Your task to perform on an android device: open app "ZOOM Cloud Meetings" (install if not already installed) and go to login screen Image 0: 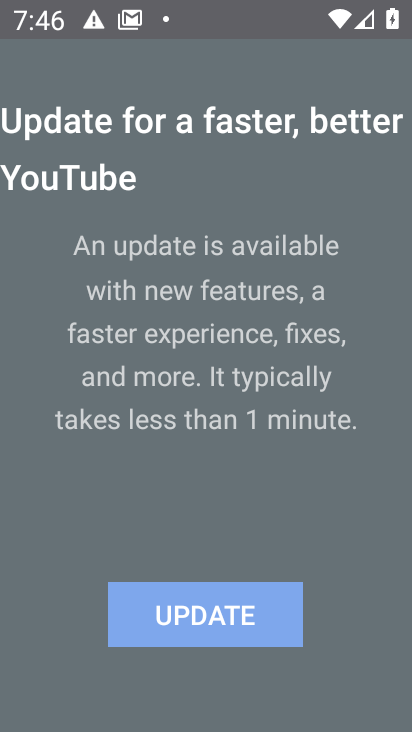
Step 0: press home button
Your task to perform on an android device: open app "ZOOM Cloud Meetings" (install if not already installed) and go to login screen Image 1: 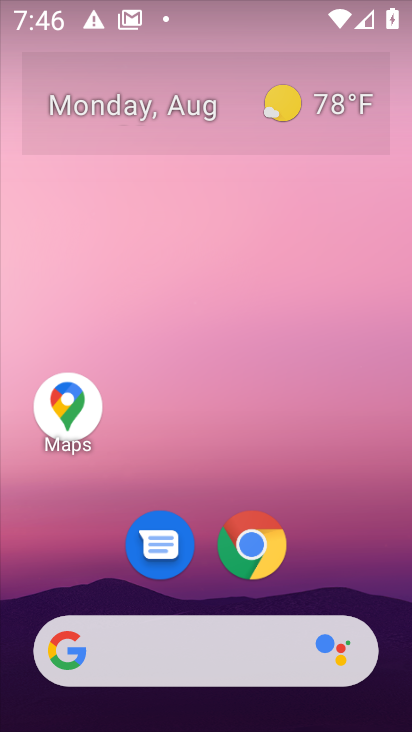
Step 1: drag from (369, 579) to (391, 86)
Your task to perform on an android device: open app "ZOOM Cloud Meetings" (install if not already installed) and go to login screen Image 2: 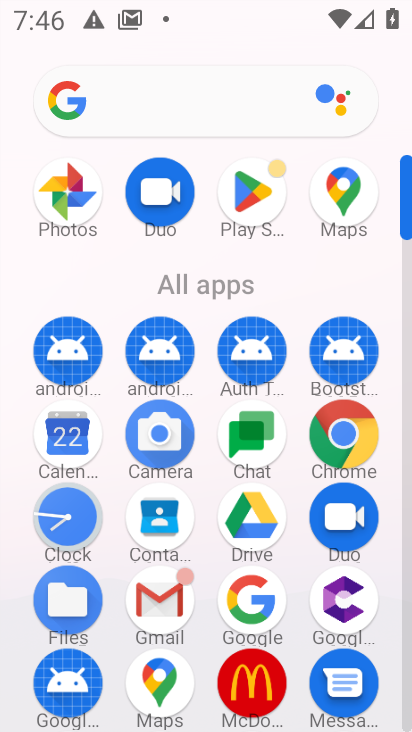
Step 2: click (246, 208)
Your task to perform on an android device: open app "ZOOM Cloud Meetings" (install if not already installed) and go to login screen Image 3: 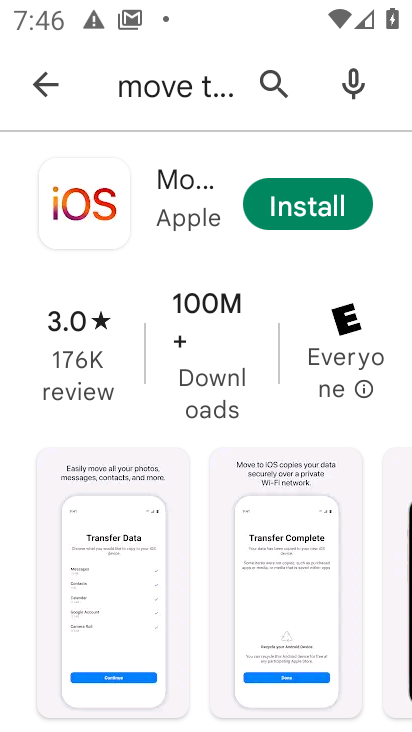
Step 3: press back button
Your task to perform on an android device: open app "ZOOM Cloud Meetings" (install if not already installed) and go to login screen Image 4: 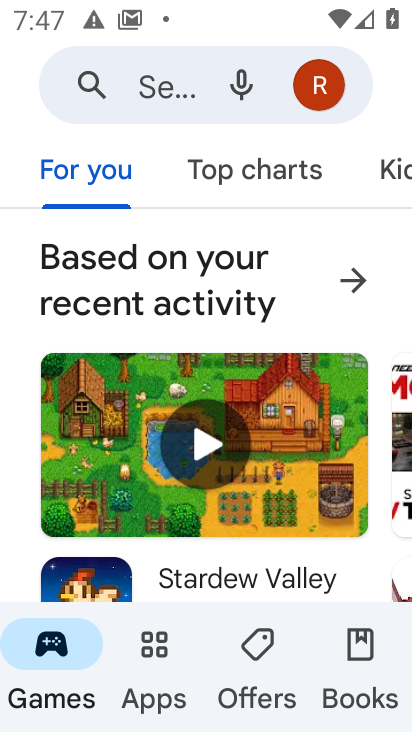
Step 4: click (154, 84)
Your task to perform on an android device: open app "ZOOM Cloud Meetings" (install if not already installed) and go to login screen Image 5: 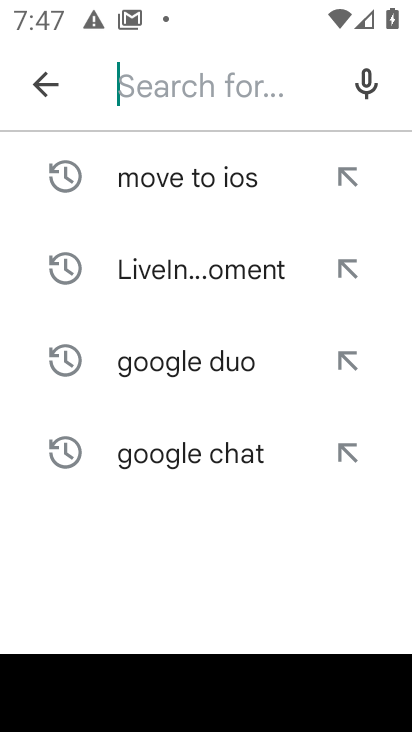
Step 5: type "ZOOM Cloud Meetings"
Your task to perform on an android device: open app "ZOOM Cloud Meetings" (install if not already installed) and go to login screen Image 6: 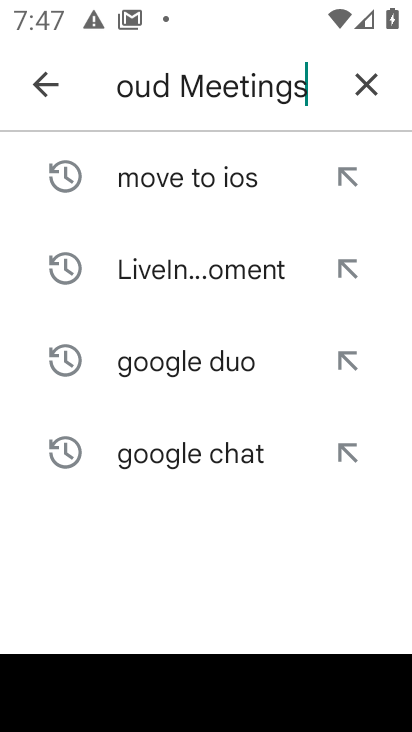
Step 6: press enter
Your task to perform on an android device: open app "ZOOM Cloud Meetings" (install if not already installed) and go to login screen Image 7: 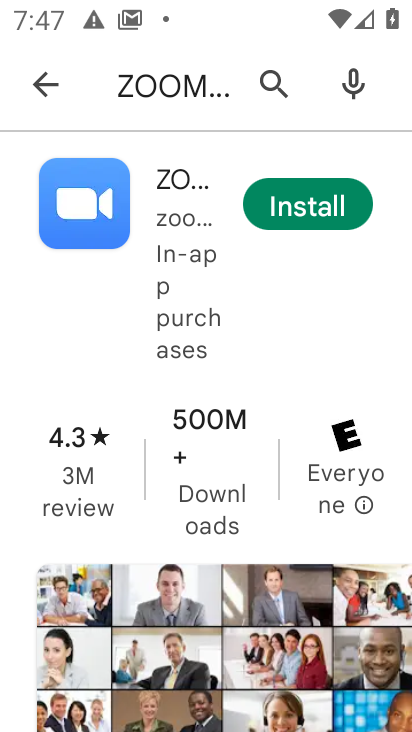
Step 7: click (304, 204)
Your task to perform on an android device: open app "ZOOM Cloud Meetings" (install if not already installed) and go to login screen Image 8: 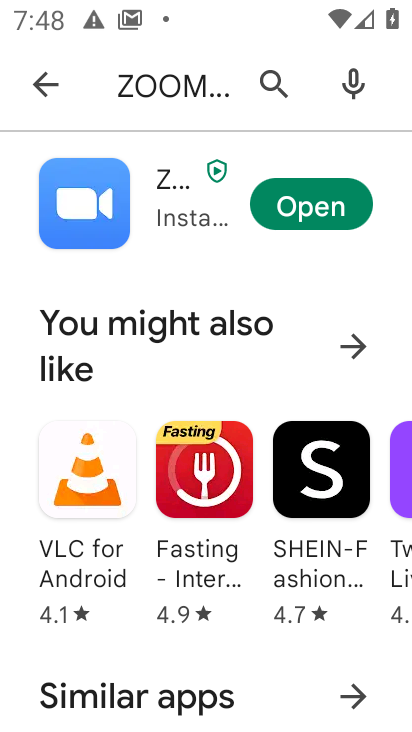
Step 8: click (327, 213)
Your task to perform on an android device: open app "ZOOM Cloud Meetings" (install if not already installed) and go to login screen Image 9: 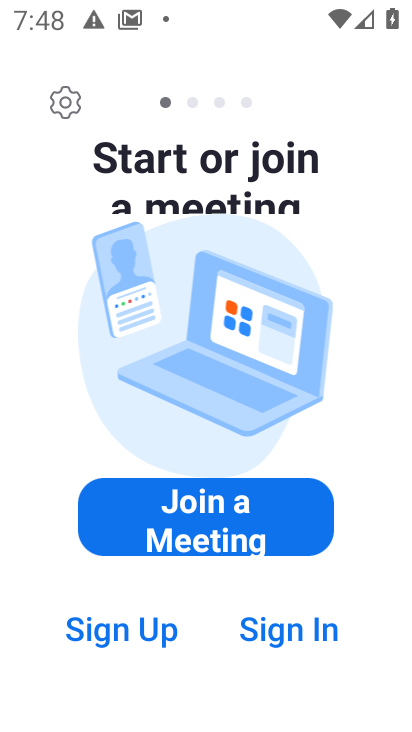
Step 9: task complete